Your task to perform on an android device: set default search engine in the chrome app Image 0: 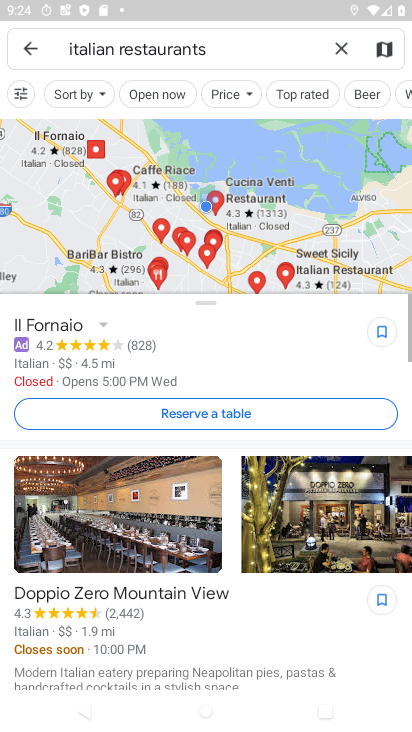
Step 0: click (62, 370)
Your task to perform on an android device: set default search engine in the chrome app Image 1: 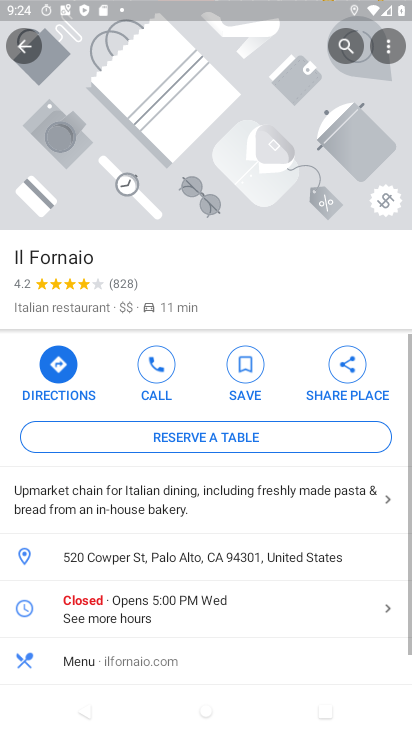
Step 1: press home button
Your task to perform on an android device: set default search engine in the chrome app Image 2: 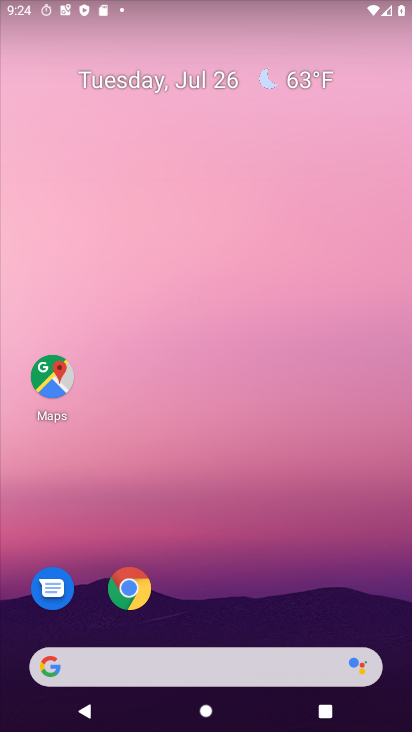
Step 2: click (135, 576)
Your task to perform on an android device: set default search engine in the chrome app Image 3: 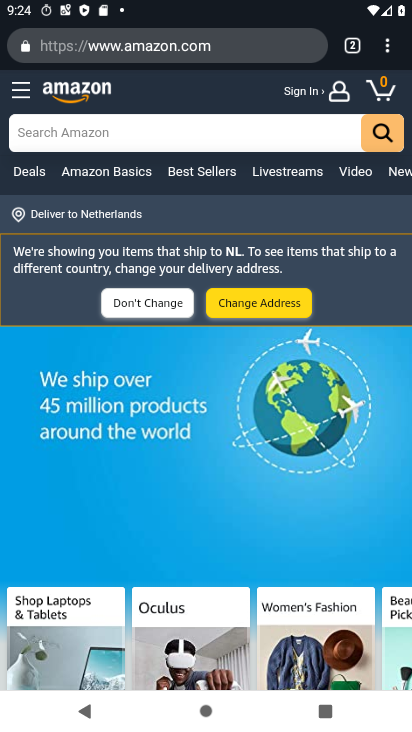
Step 3: click (391, 47)
Your task to perform on an android device: set default search engine in the chrome app Image 4: 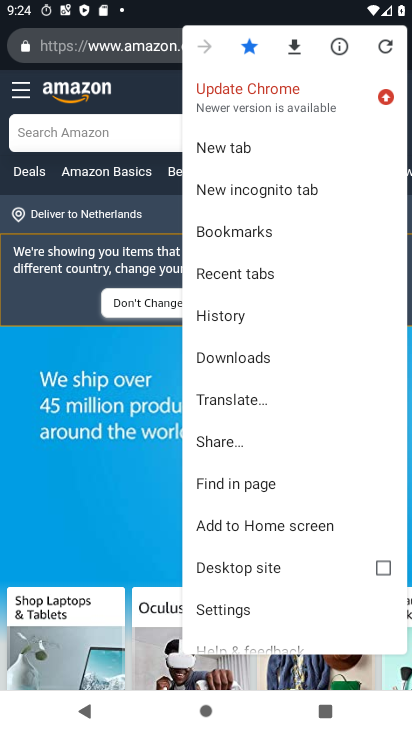
Step 4: click (220, 614)
Your task to perform on an android device: set default search engine in the chrome app Image 5: 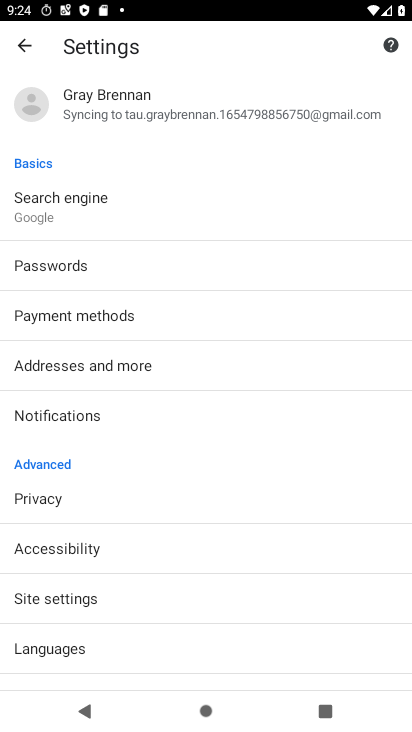
Step 5: click (125, 191)
Your task to perform on an android device: set default search engine in the chrome app Image 6: 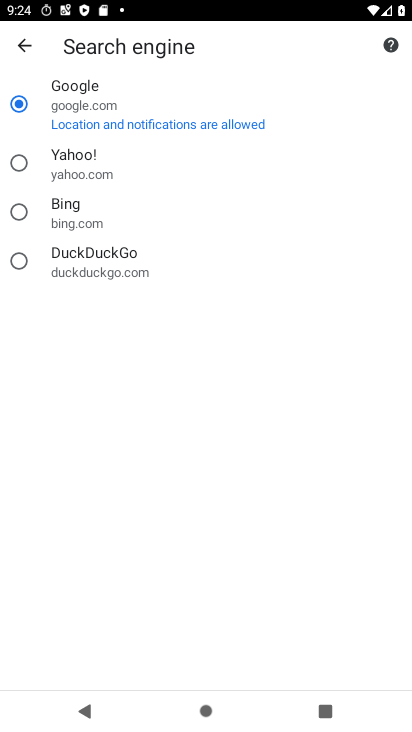
Step 6: click (125, 191)
Your task to perform on an android device: set default search engine in the chrome app Image 7: 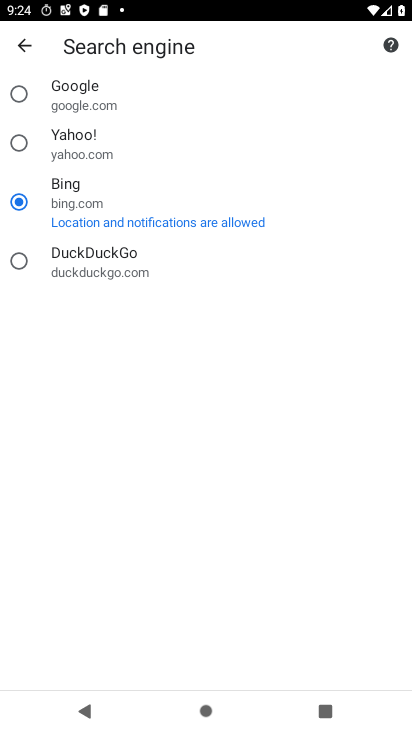
Step 7: task complete